Your task to perform on an android device: What's on my calendar tomorrow? Image 0: 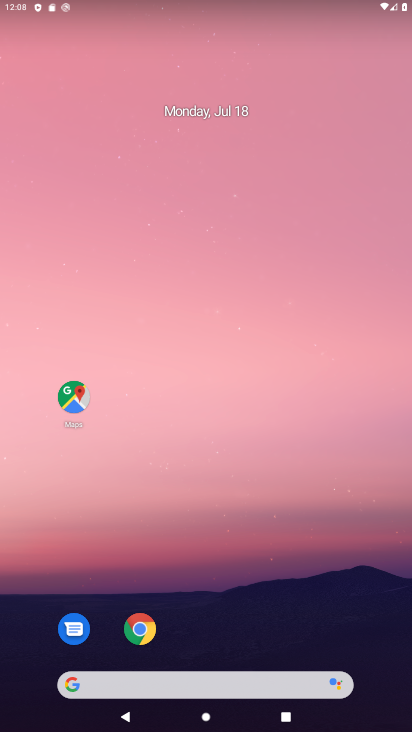
Step 0: drag from (198, 620) to (198, 345)
Your task to perform on an android device: What's on my calendar tomorrow? Image 1: 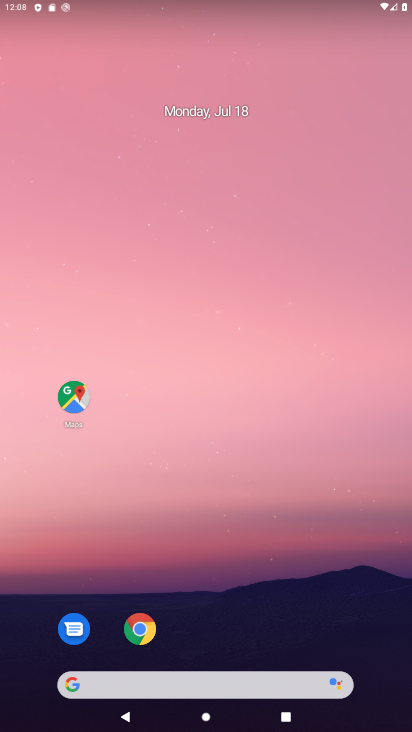
Step 1: drag from (230, 671) to (253, 180)
Your task to perform on an android device: What's on my calendar tomorrow? Image 2: 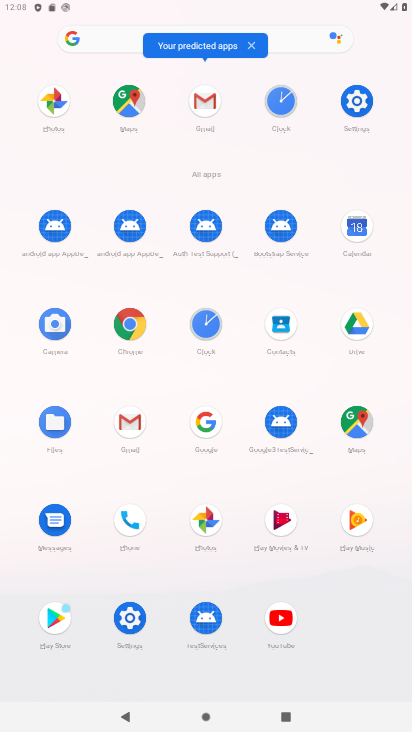
Step 2: click (346, 227)
Your task to perform on an android device: What's on my calendar tomorrow? Image 3: 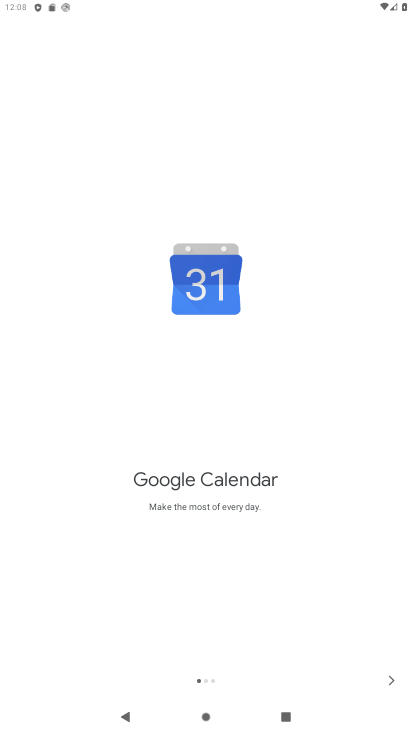
Step 3: click (387, 669)
Your task to perform on an android device: What's on my calendar tomorrow? Image 4: 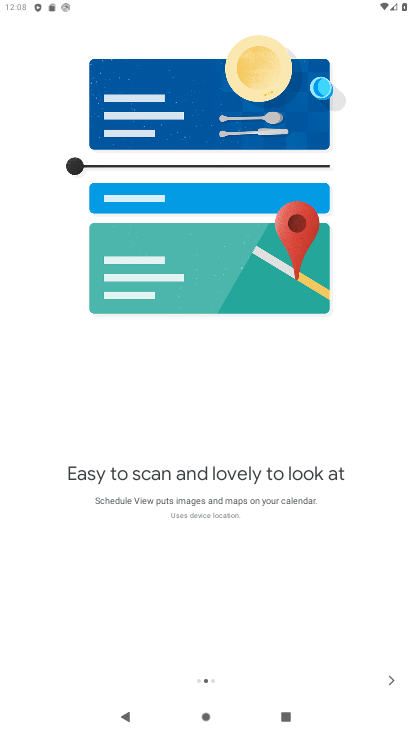
Step 4: click (387, 676)
Your task to perform on an android device: What's on my calendar tomorrow? Image 5: 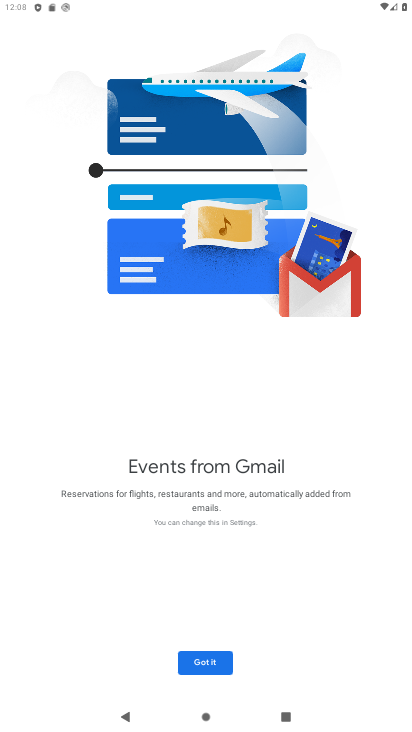
Step 5: click (223, 667)
Your task to perform on an android device: What's on my calendar tomorrow? Image 6: 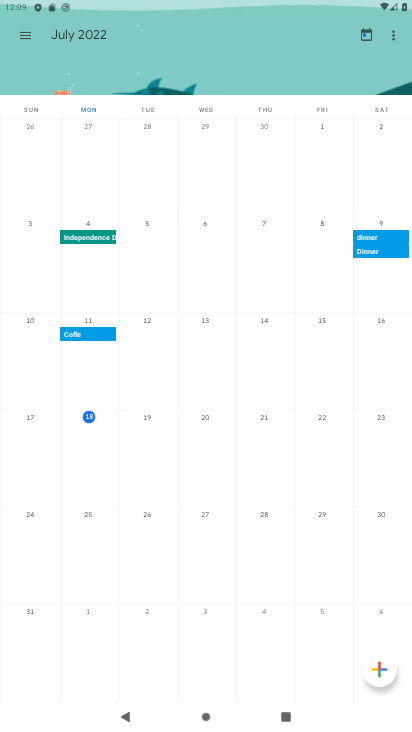
Step 6: click (134, 420)
Your task to perform on an android device: What's on my calendar tomorrow? Image 7: 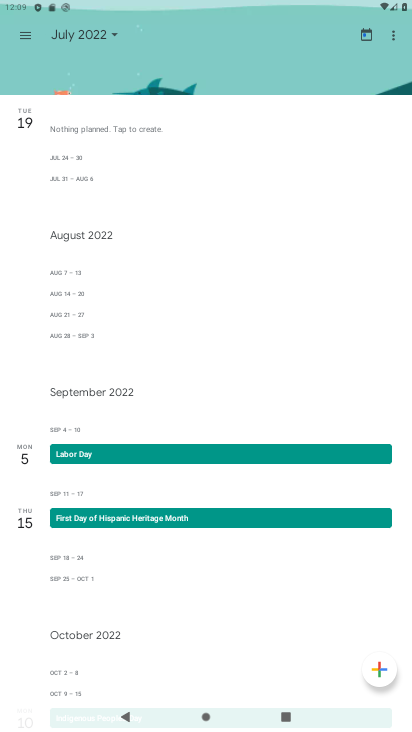
Step 7: task complete